Your task to perform on an android device: Go to Reddit.com Image 0: 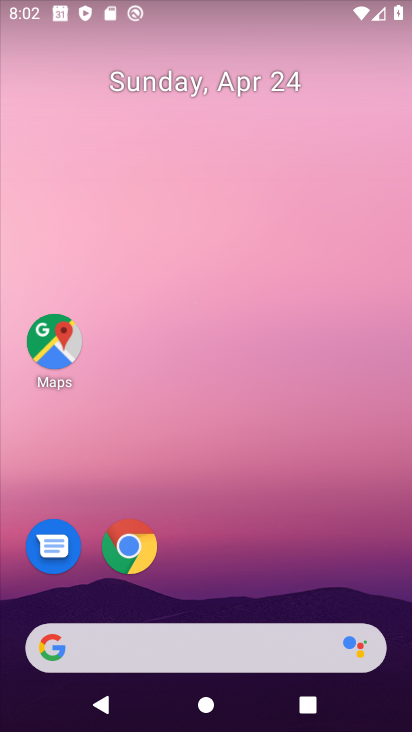
Step 0: click (147, 546)
Your task to perform on an android device: Go to Reddit.com Image 1: 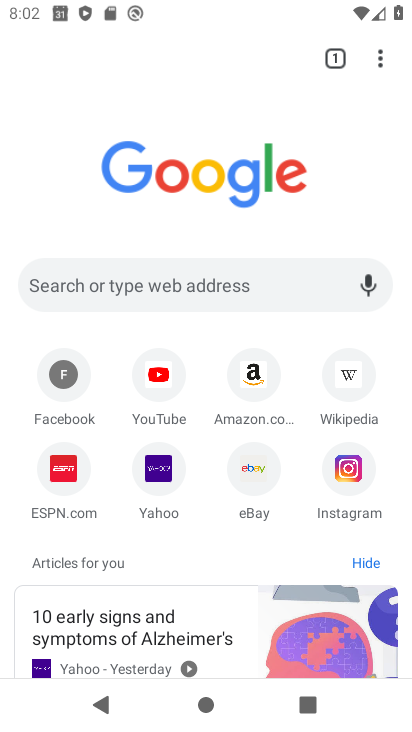
Step 1: click (147, 546)
Your task to perform on an android device: Go to Reddit.com Image 2: 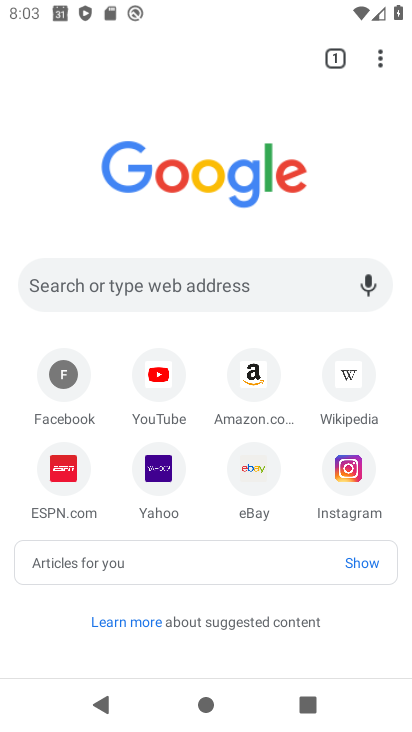
Step 2: click (243, 283)
Your task to perform on an android device: Go to Reddit.com Image 3: 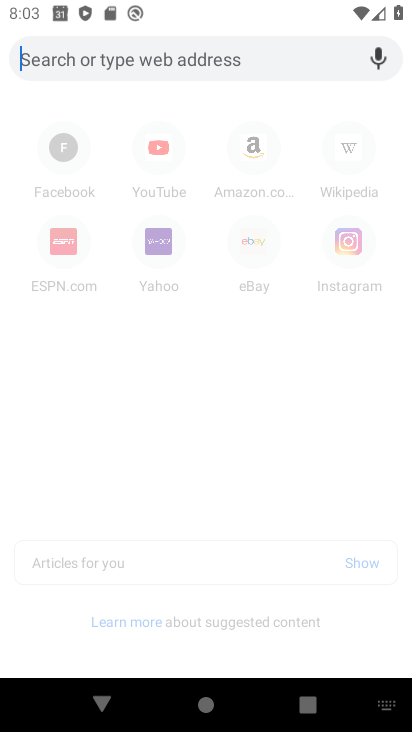
Step 3: type "reddit.com"
Your task to perform on an android device: Go to Reddit.com Image 4: 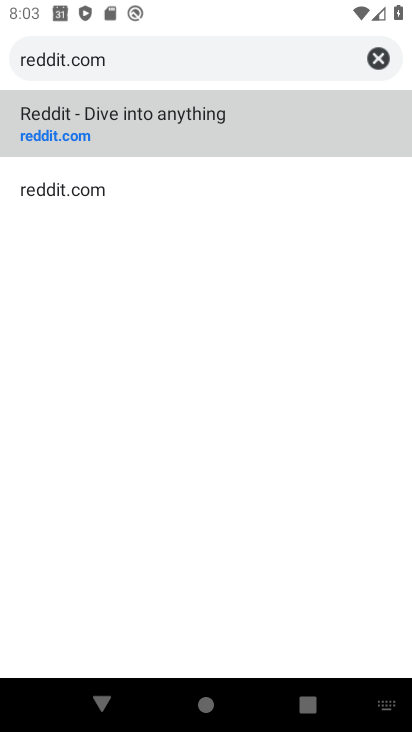
Step 4: click (64, 102)
Your task to perform on an android device: Go to Reddit.com Image 5: 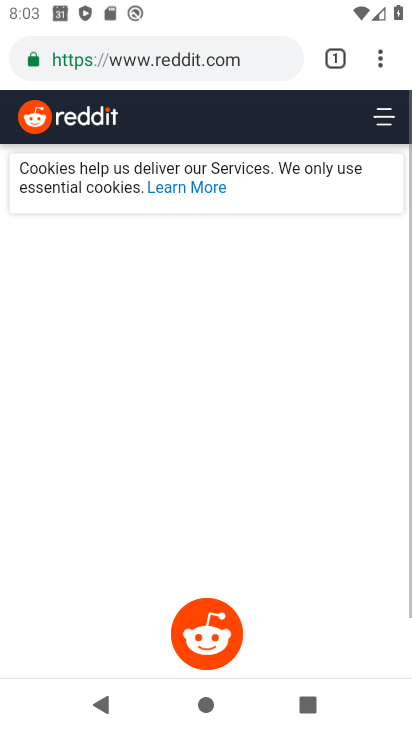
Step 5: task complete